Your task to perform on an android device: turn smart compose on in the gmail app Image 0: 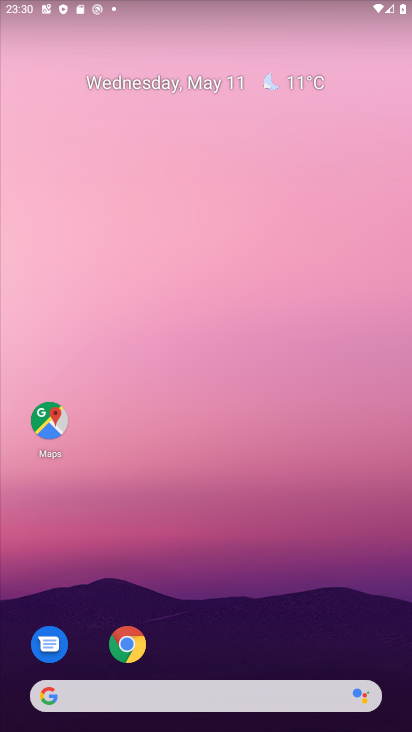
Step 0: drag from (221, 651) to (233, 113)
Your task to perform on an android device: turn smart compose on in the gmail app Image 1: 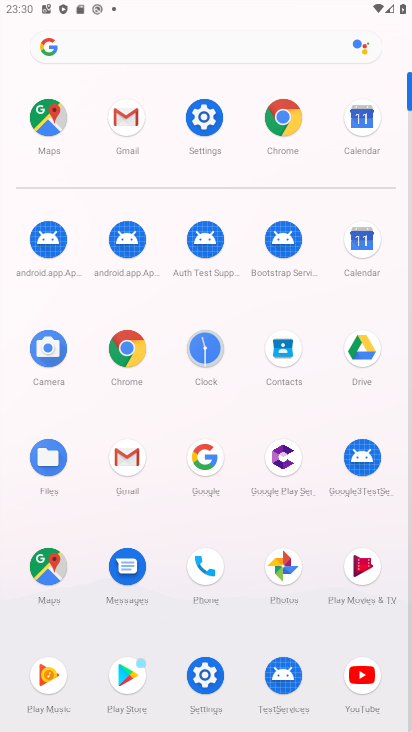
Step 1: click (132, 458)
Your task to perform on an android device: turn smart compose on in the gmail app Image 2: 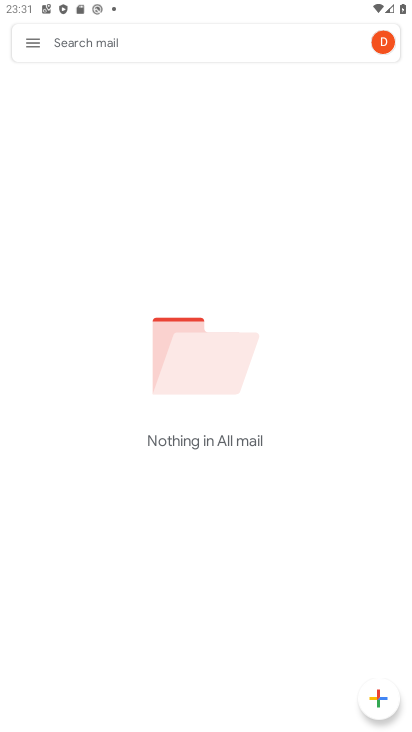
Step 2: click (29, 41)
Your task to perform on an android device: turn smart compose on in the gmail app Image 3: 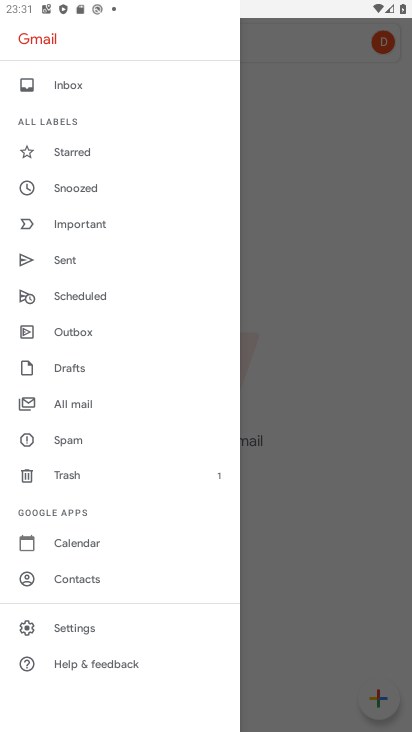
Step 3: click (83, 615)
Your task to perform on an android device: turn smart compose on in the gmail app Image 4: 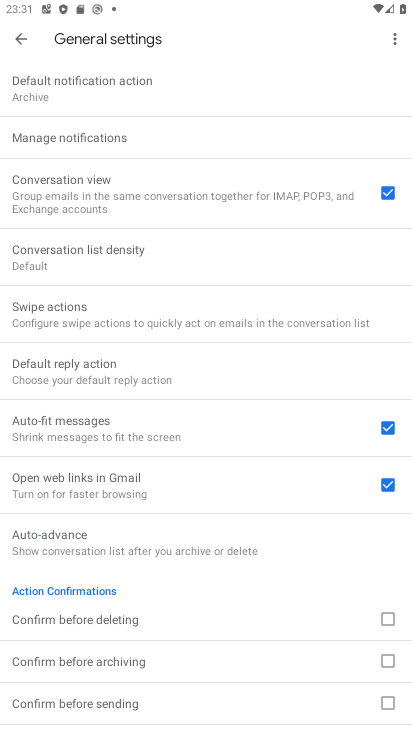
Step 4: click (21, 41)
Your task to perform on an android device: turn smart compose on in the gmail app Image 5: 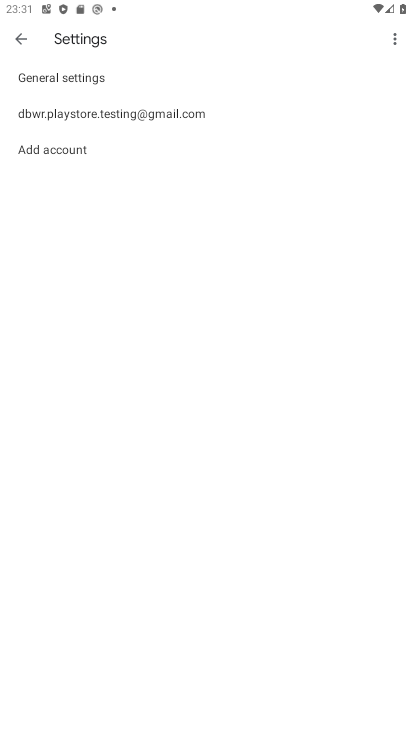
Step 5: click (202, 111)
Your task to perform on an android device: turn smart compose on in the gmail app Image 6: 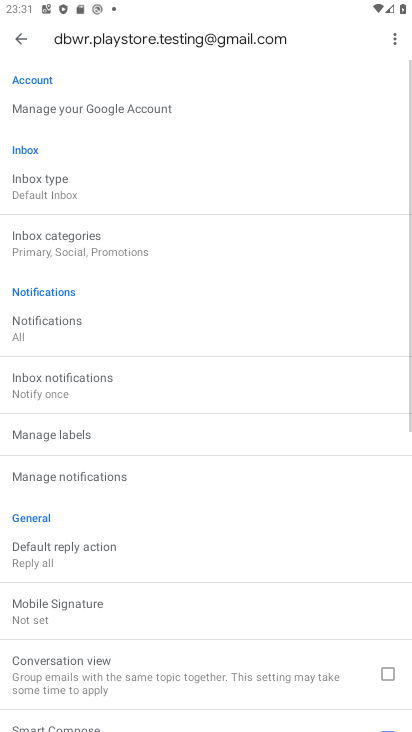
Step 6: task complete